Your task to perform on an android device: Search for sony triple a on newegg.com, select the first entry, and add it to the cart. Image 0: 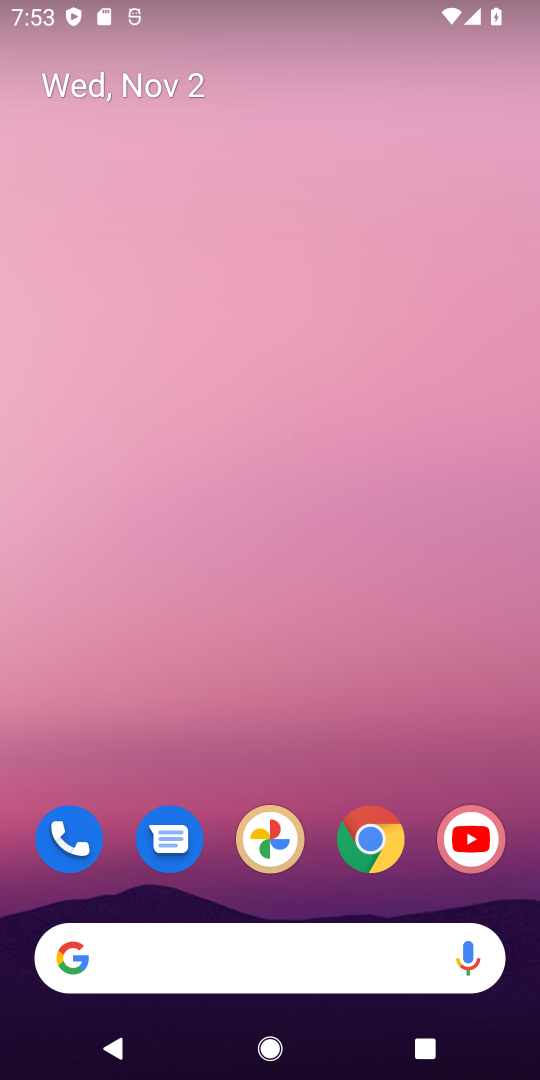
Step 0: click (372, 843)
Your task to perform on an android device: Search for sony triple a on newegg.com, select the first entry, and add it to the cart. Image 1: 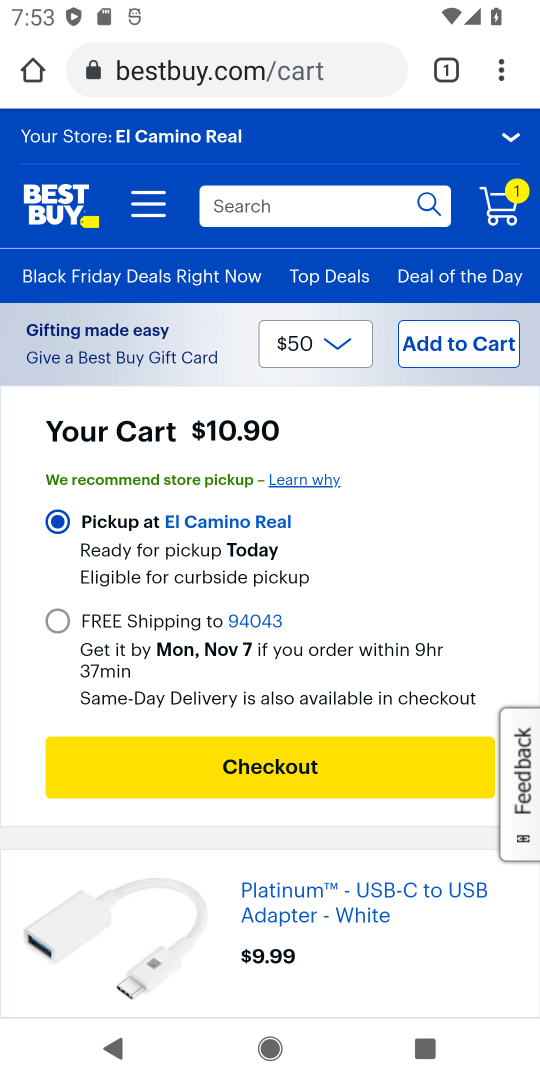
Step 1: click (332, 63)
Your task to perform on an android device: Search for sony triple a on newegg.com, select the first entry, and add it to the cart. Image 2: 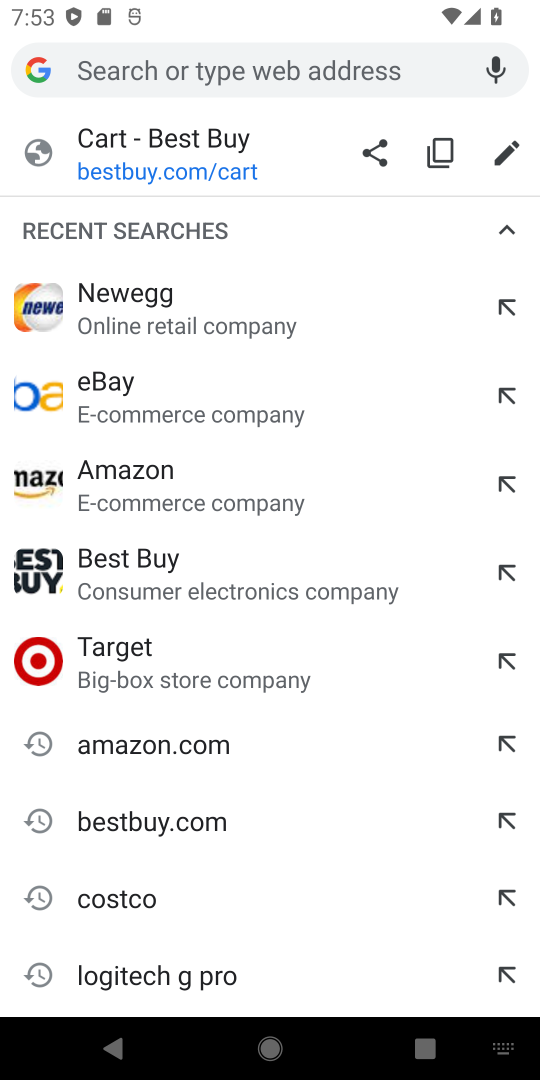
Step 2: type "newegg.com"
Your task to perform on an android device: Search for sony triple a on newegg.com, select the first entry, and add it to the cart. Image 3: 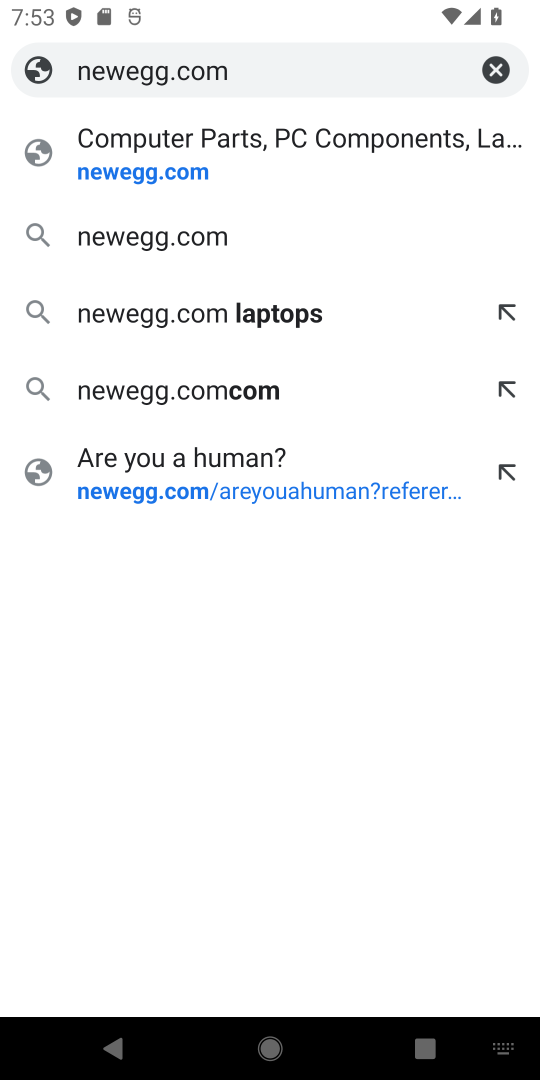
Step 3: click (201, 251)
Your task to perform on an android device: Search for sony triple a on newegg.com, select the first entry, and add it to the cart. Image 4: 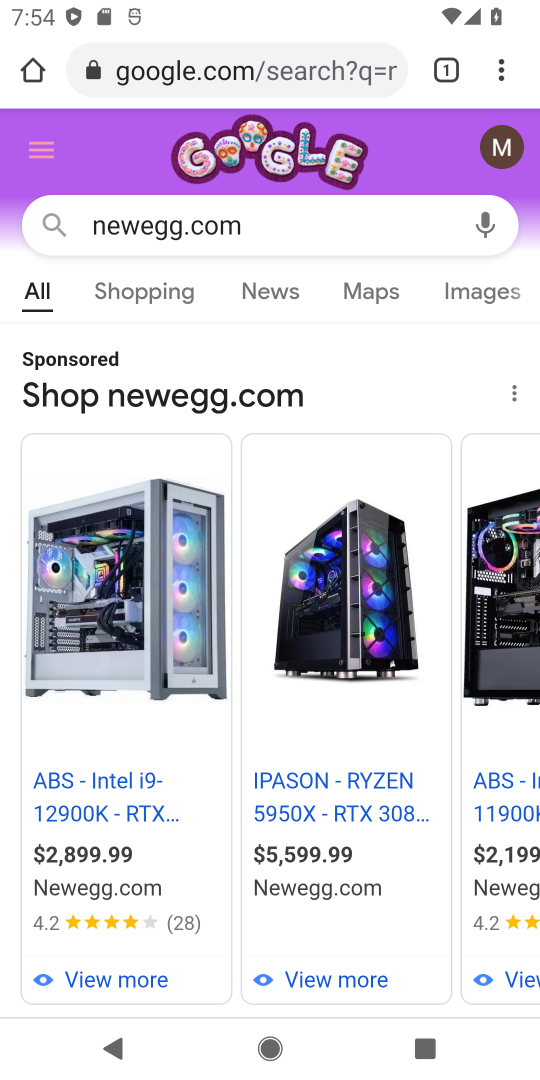
Step 4: drag from (405, 942) to (390, 366)
Your task to perform on an android device: Search for sony triple a on newegg.com, select the first entry, and add it to the cart. Image 5: 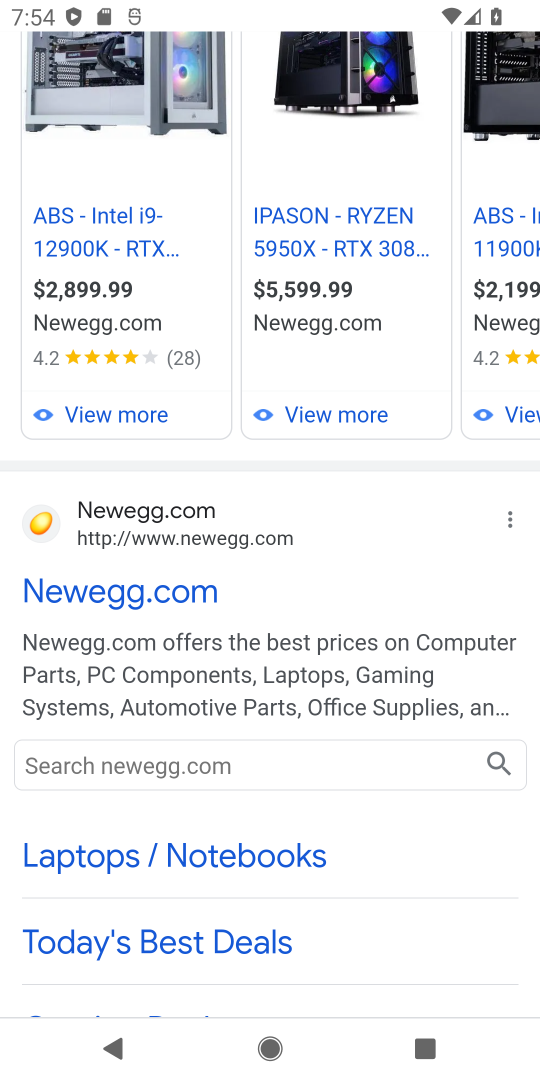
Step 5: click (237, 599)
Your task to perform on an android device: Search for sony triple a on newegg.com, select the first entry, and add it to the cart. Image 6: 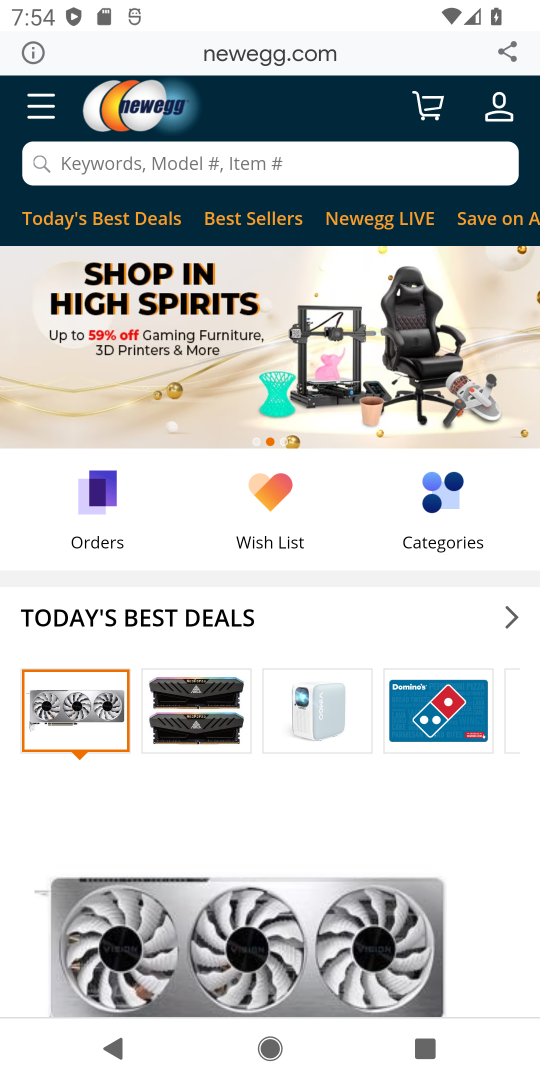
Step 6: click (355, 154)
Your task to perform on an android device: Search for sony triple a on newegg.com, select the first entry, and add it to the cart. Image 7: 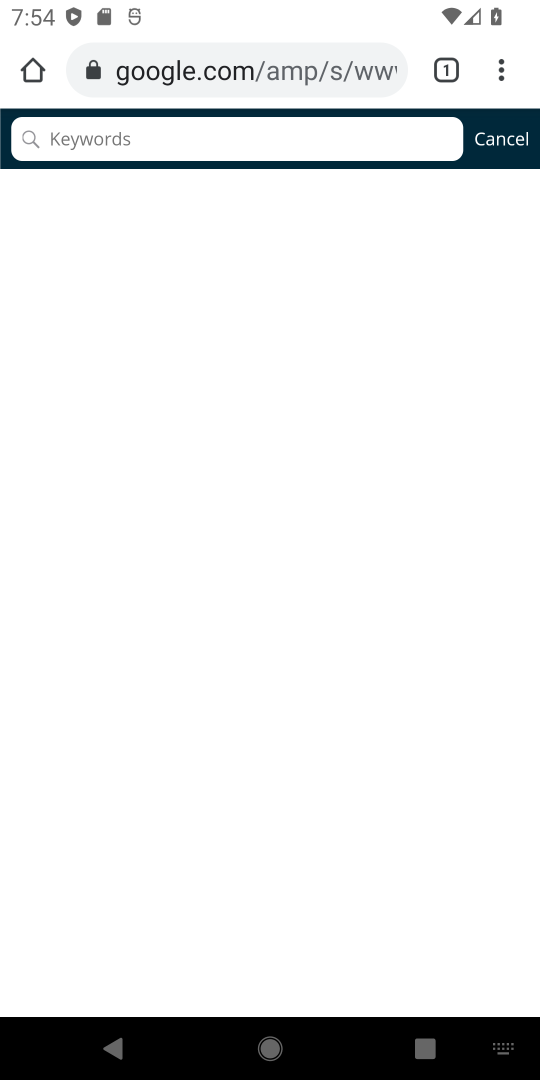
Step 7: type "sony triple a"
Your task to perform on an android device: Search for sony triple a on newegg.com, select the first entry, and add it to the cart. Image 8: 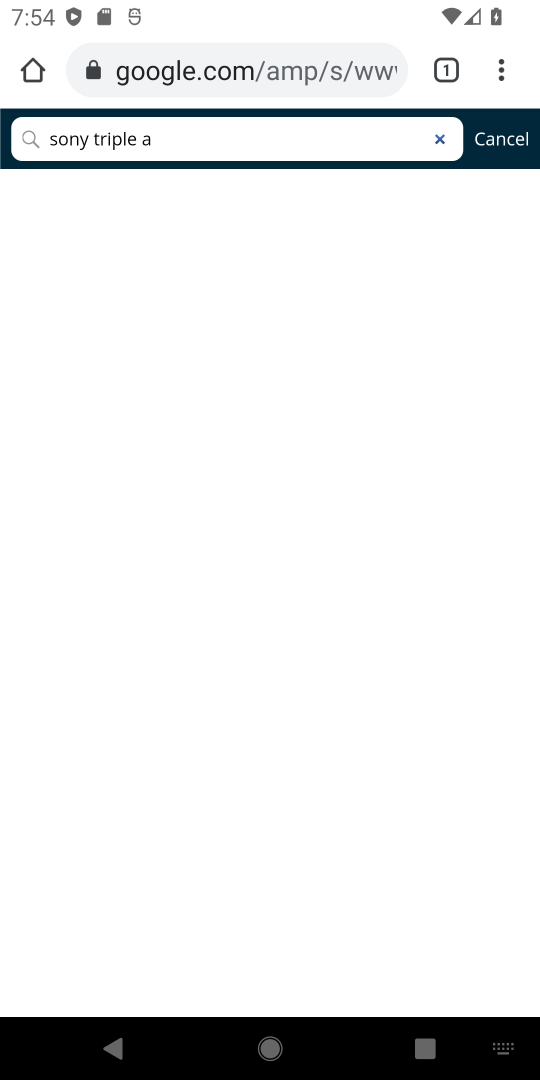
Step 8: task complete